Your task to perform on an android device: create a new album in the google photos Image 0: 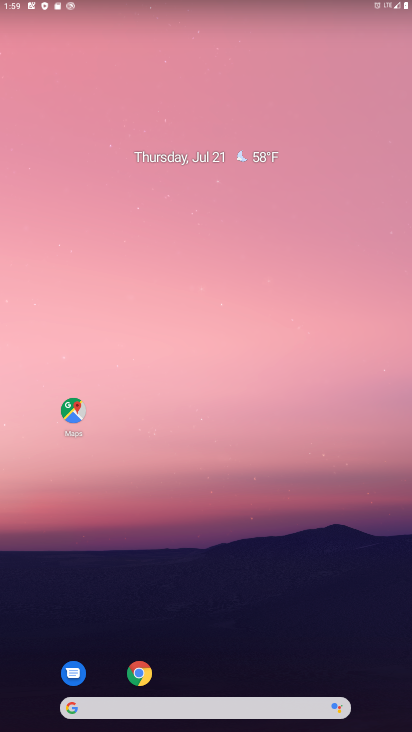
Step 0: drag from (221, 663) to (207, 185)
Your task to perform on an android device: create a new album in the google photos Image 1: 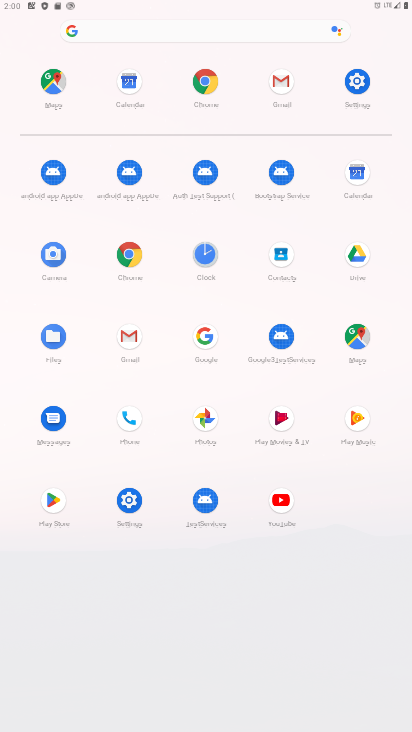
Step 1: click (201, 419)
Your task to perform on an android device: create a new album in the google photos Image 2: 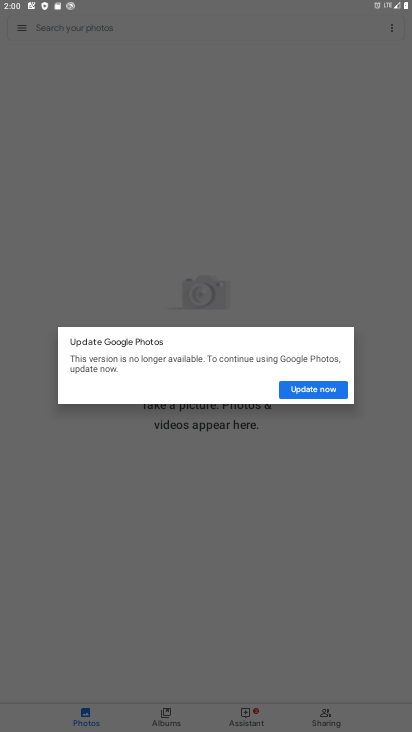
Step 2: click (297, 381)
Your task to perform on an android device: create a new album in the google photos Image 3: 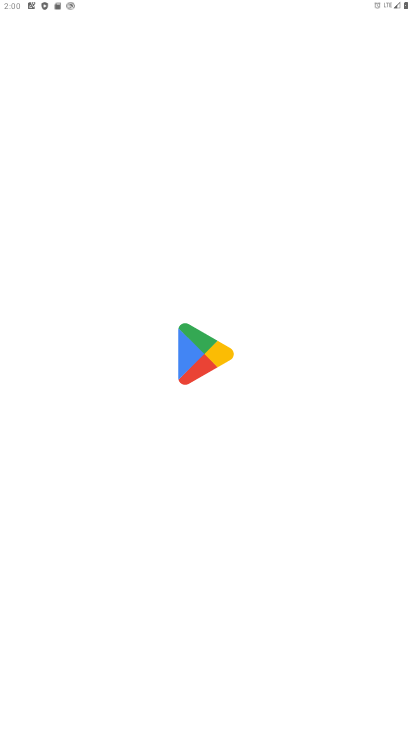
Step 3: press back button
Your task to perform on an android device: create a new album in the google photos Image 4: 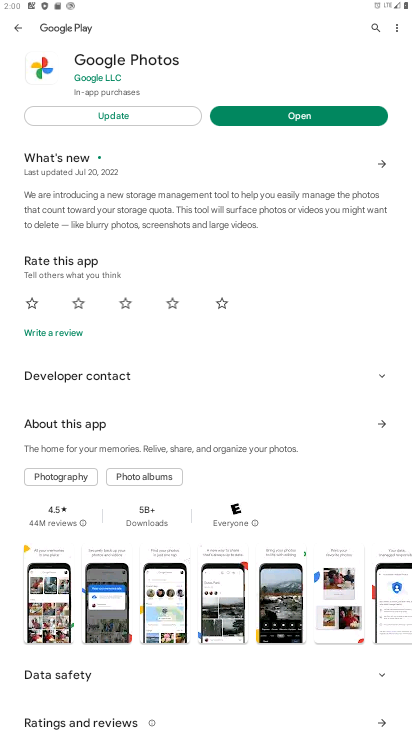
Step 4: click (14, 27)
Your task to perform on an android device: create a new album in the google photos Image 5: 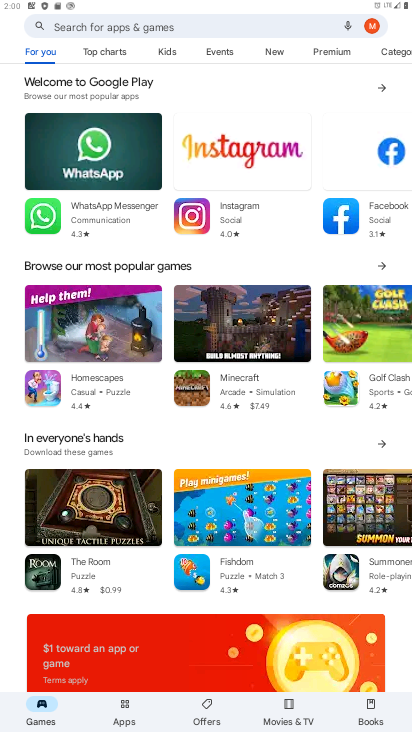
Step 5: press home button
Your task to perform on an android device: create a new album in the google photos Image 6: 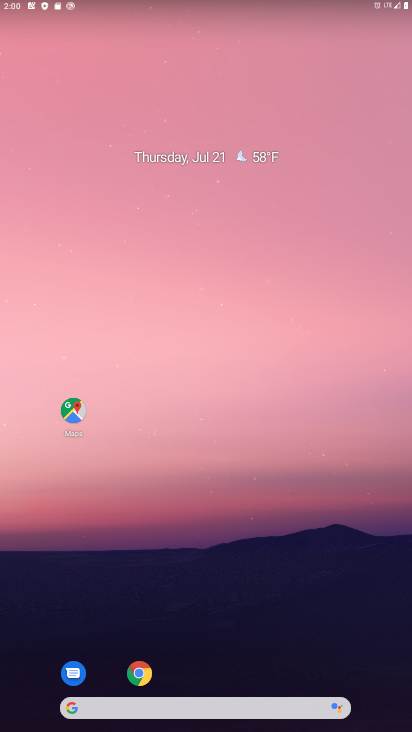
Step 6: drag from (202, 667) to (226, 333)
Your task to perform on an android device: create a new album in the google photos Image 7: 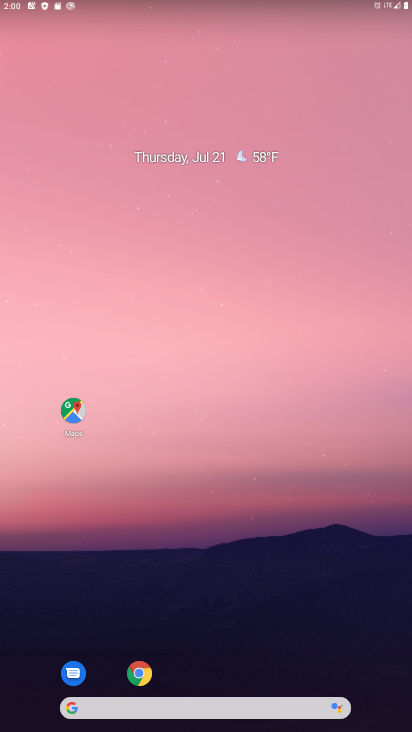
Step 7: drag from (184, 608) to (182, 377)
Your task to perform on an android device: create a new album in the google photos Image 8: 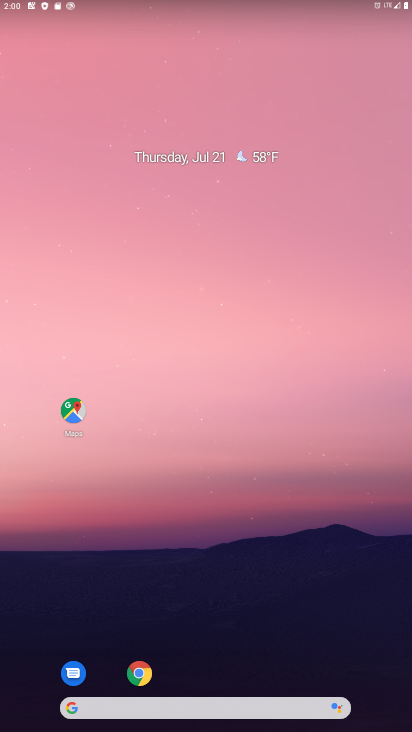
Step 8: drag from (210, 657) to (204, 444)
Your task to perform on an android device: create a new album in the google photos Image 9: 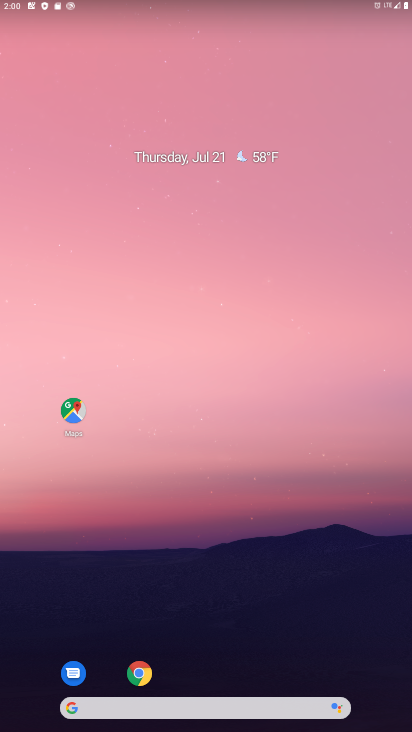
Step 9: drag from (160, 709) to (187, 22)
Your task to perform on an android device: create a new album in the google photos Image 10: 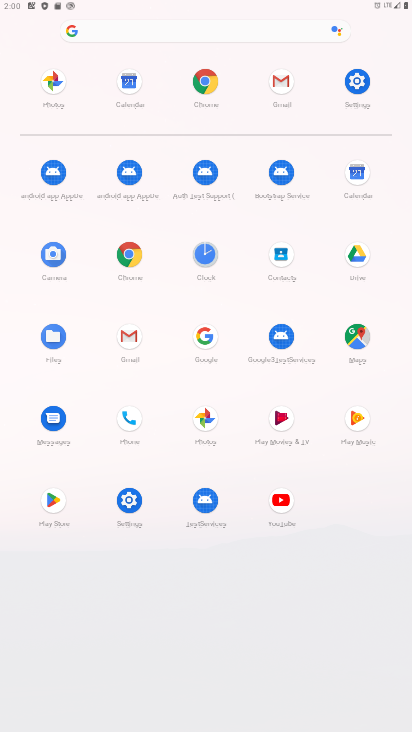
Step 10: click (212, 404)
Your task to perform on an android device: create a new album in the google photos Image 11: 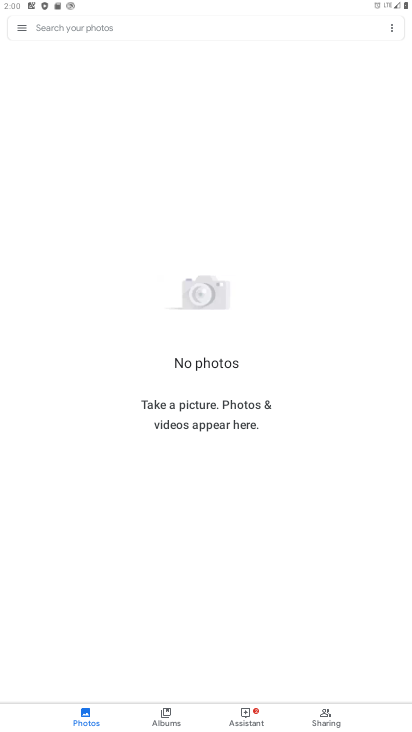
Step 11: click (163, 716)
Your task to perform on an android device: create a new album in the google photos Image 12: 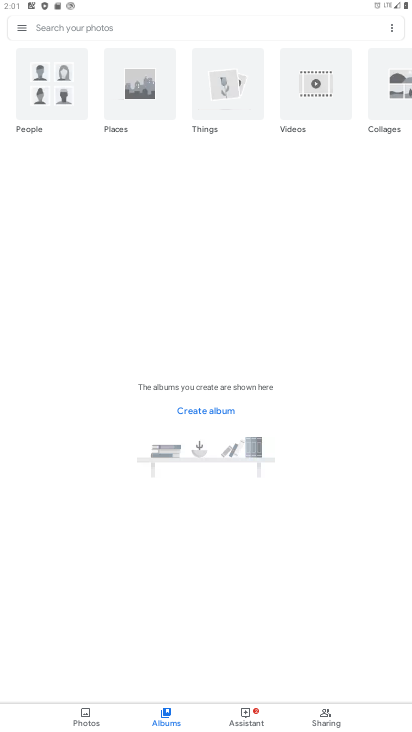
Step 12: task complete